Your task to perform on an android device: Clear the shopping cart on newegg.com. Image 0: 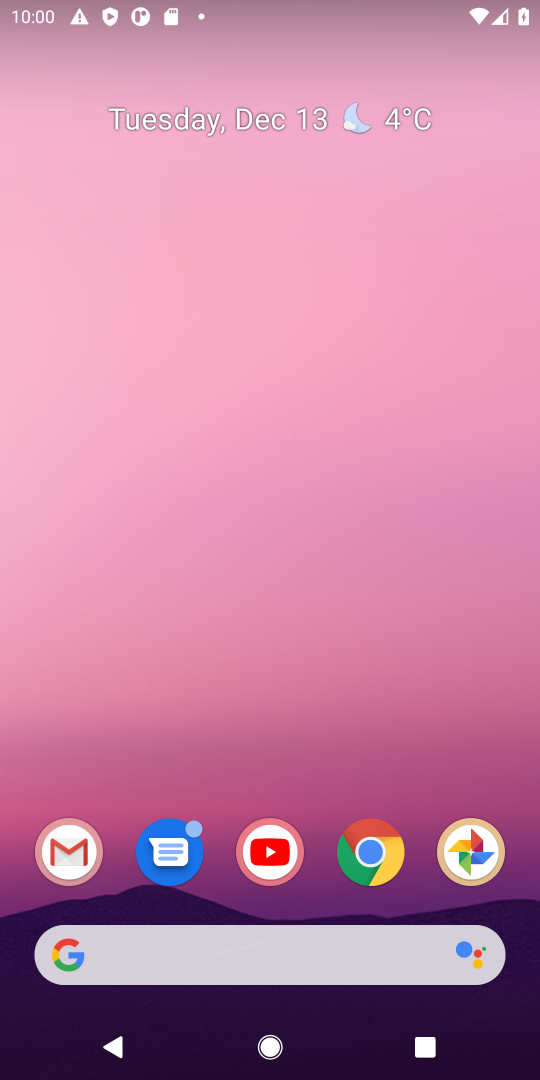
Step 0: press home button
Your task to perform on an android device: Clear the shopping cart on newegg.com. Image 1: 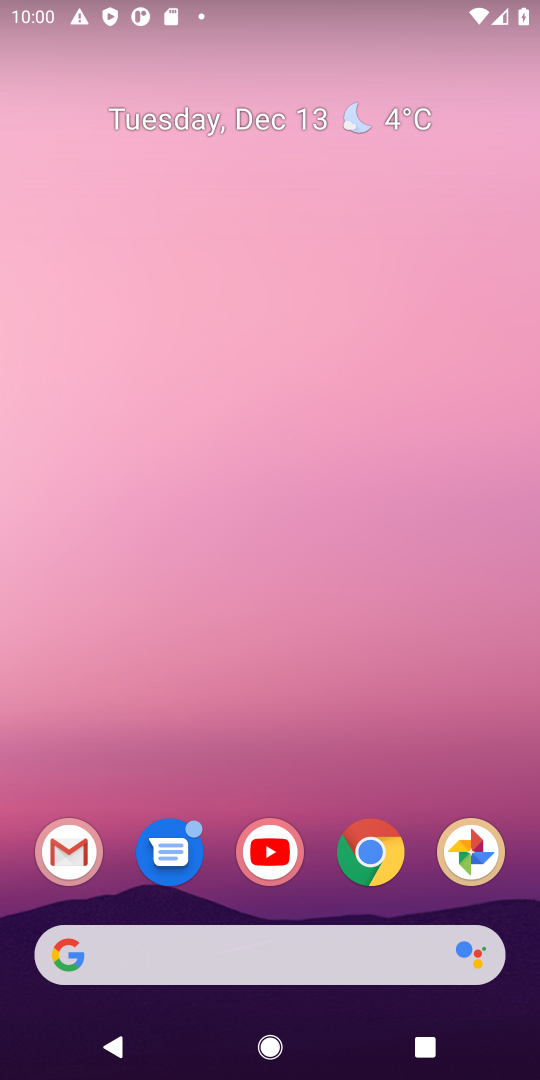
Step 1: click (116, 947)
Your task to perform on an android device: Clear the shopping cart on newegg.com. Image 2: 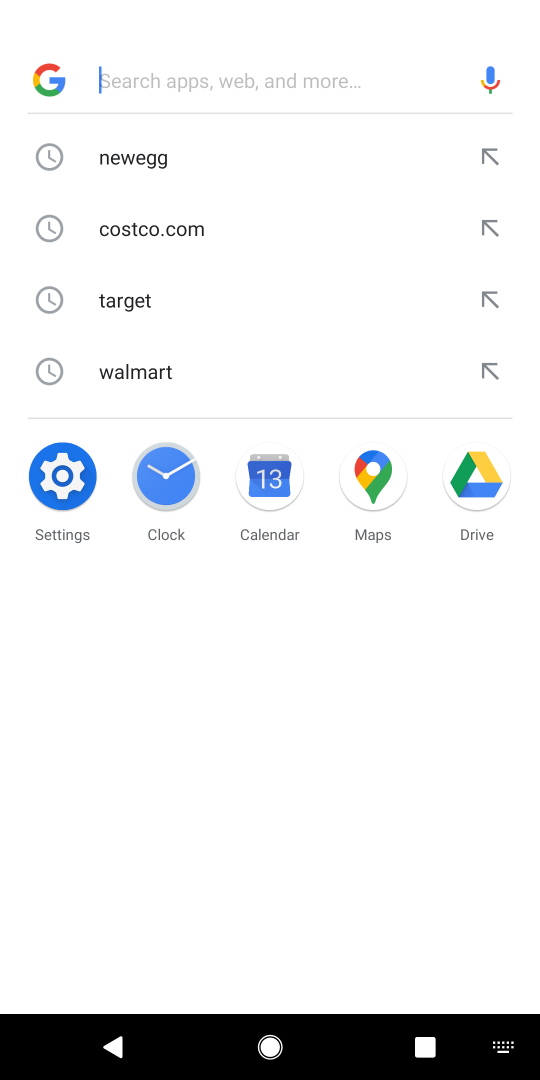
Step 2: type "newegg.com"
Your task to perform on an android device: Clear the shopping cart on newegg.com. Image 3: 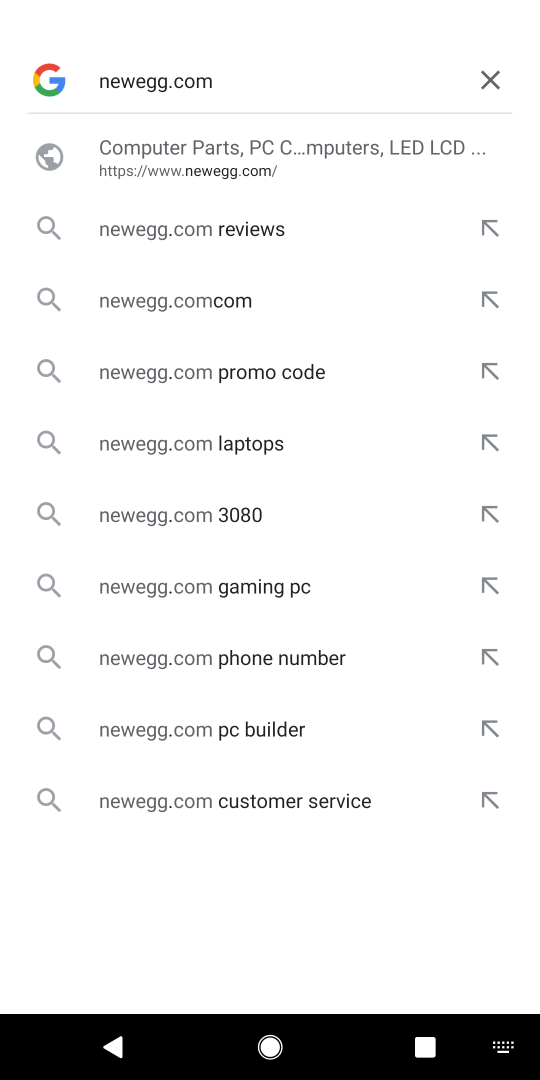
Step 3: press enter
Your task to perform on an android device: Clear the shopping cart on newegg.com. Image 4: 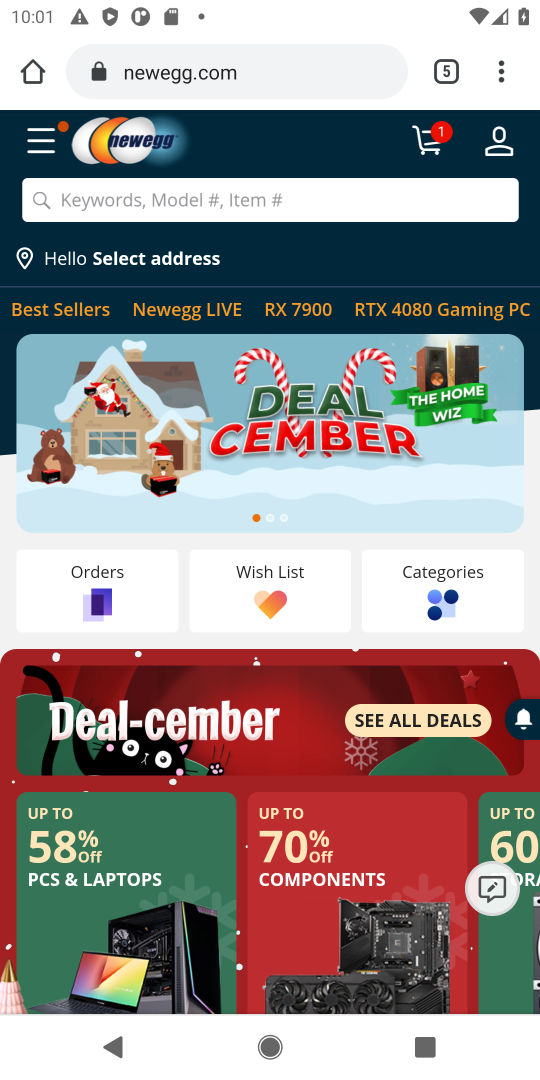
Step 4: click (431, 150)
Your task to perform on an android device: Clear the shopping cart on newegg.com. Image 5: 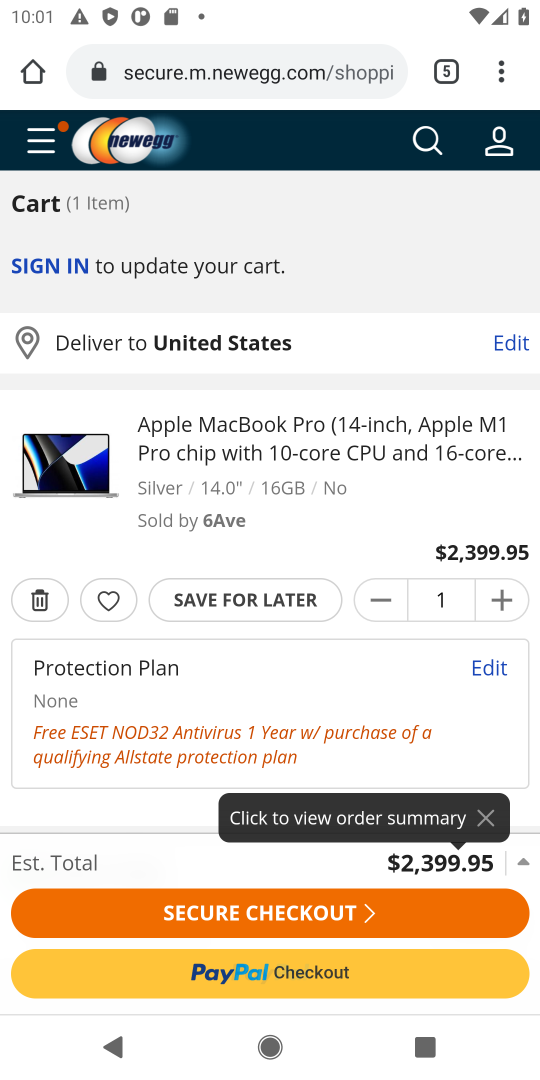
Step 5: click (34, 595)
Your task to perform on an android device: Clear the shopping cart on newegg.com. Image 6: 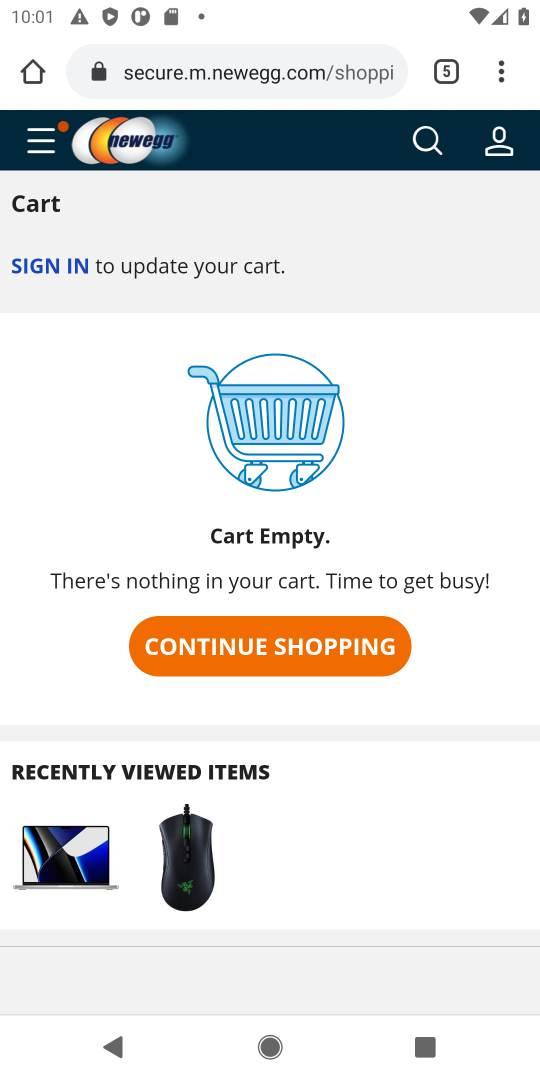
Step 6: task complete